Your task to perform on an android device: open the mobile data screen to see how much data has been used Image 0: 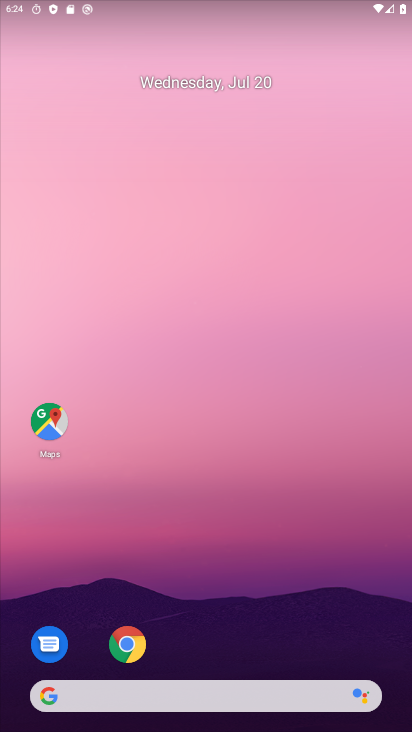
Step 0: press home button
Your task to perform on an android device: open the mobile data screen to see how much data has been used Image 1: 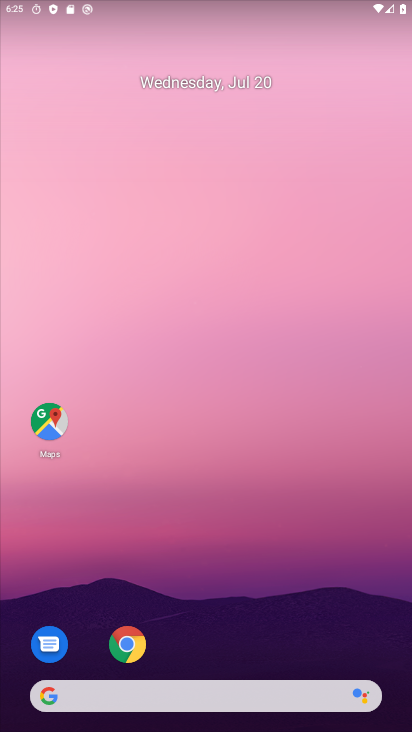
Step 1: press home button
Your task to perform on an android device: open the mobile data screen to see how much data has been used Image 2: 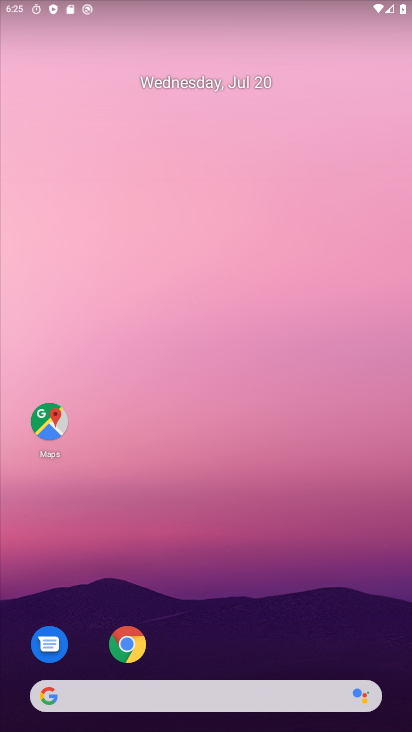
Step 2: drag from (303, 667) to (227, 191)
Your task to perform on an android device: open the mobile data screen to see how much data has been used Image 3: 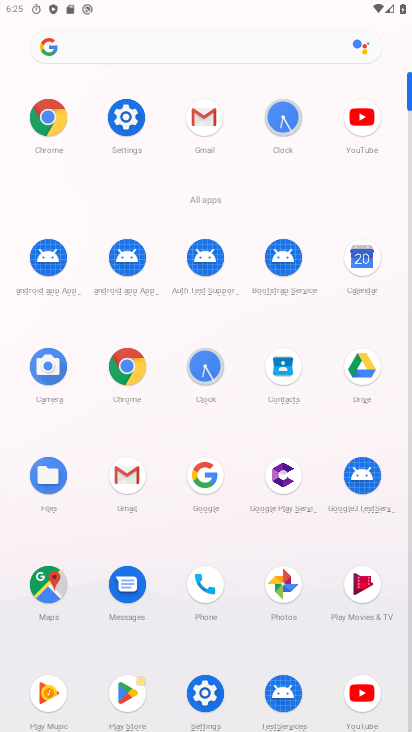
Step 3: click (117, 126)
Your task to perform on an android device: open the mobile data screen to see how much data has been used Image 4: 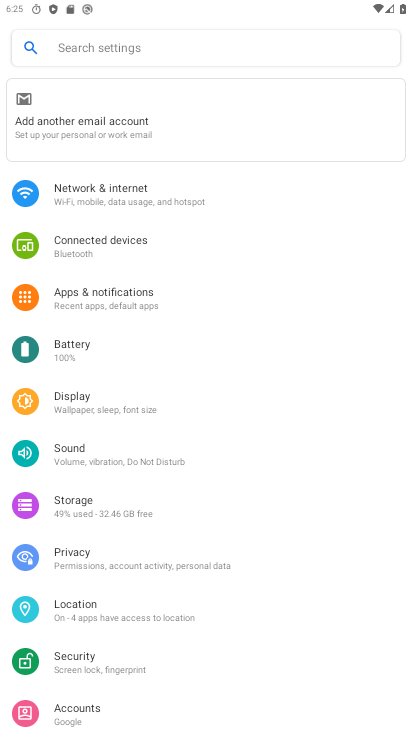
Step 4: click (99, 196)
Your task to perform on an android device: open the mobile data screen to see how much data has been used Image 5: 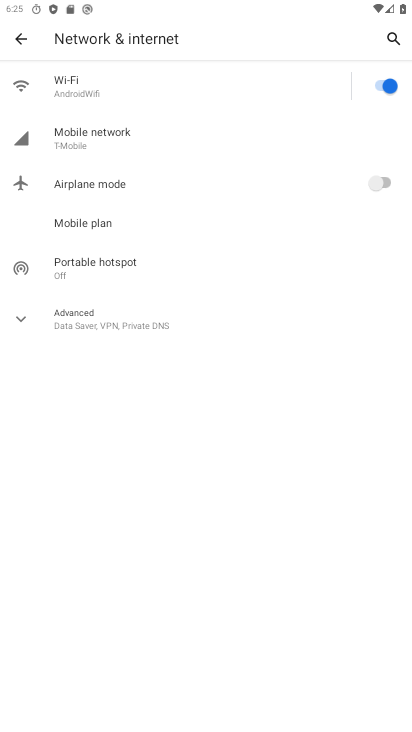
Step 5: click (85, 131)
Your task to perform on an android device: open the mobile data screen to see how much data has been used Image 6: 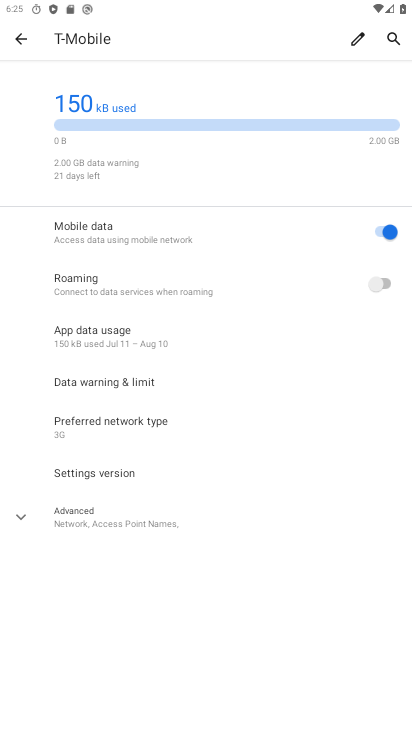
Step 6: click (81, 334)
Your task to perform on an android device: open the mobile data screen to see how much data has been used Image 7: 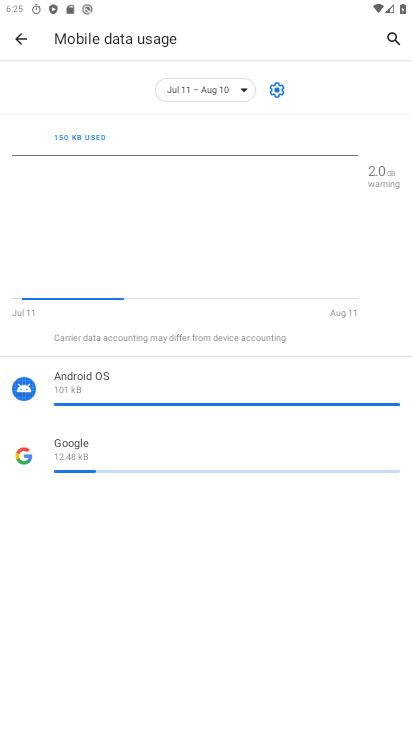
Step 7: task complete